Your task to perform on an android device: stop showing notifications on the lock screen Image 0: 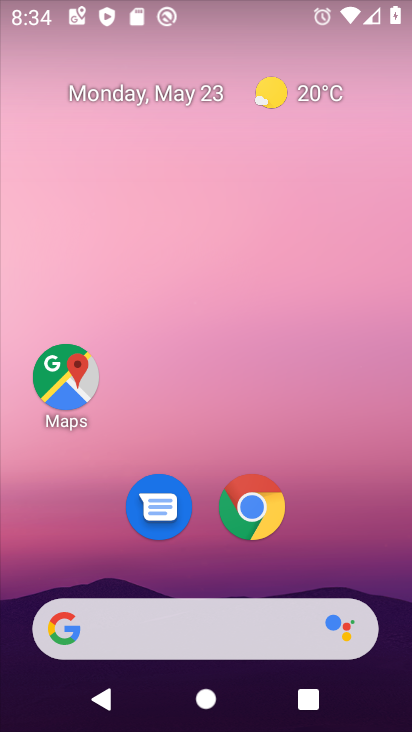
Step 0: drag from (383, 595) to (367, 12)
Your task to perform on an android device: stop showing notifications on the lock screen Image 1: 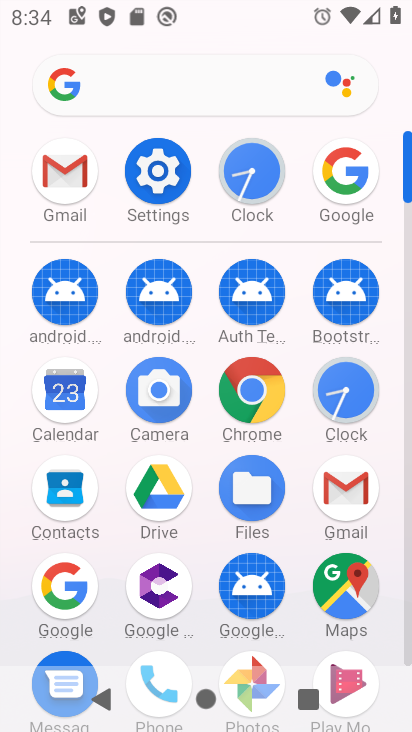
Step 1: click (167, 178)
Your task to perform on an android device: stop showing notifications on the lock screen Image 2: 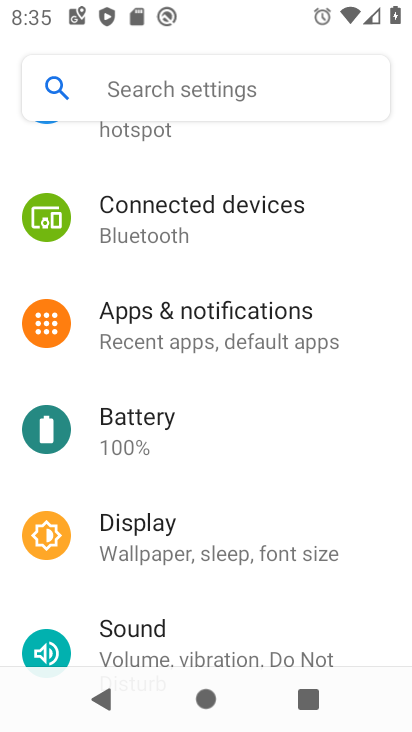
Step 2: click (162, 333)
Your task to perform on an android device: stop showing notifications on the lock screen Image 3: 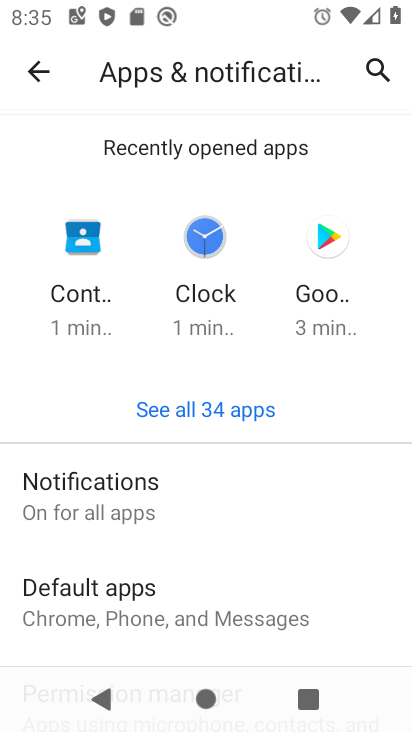
Step 3: click (100, 513)
Your task to perform on an android device: stop showing notifications on the lock screen Image 4: 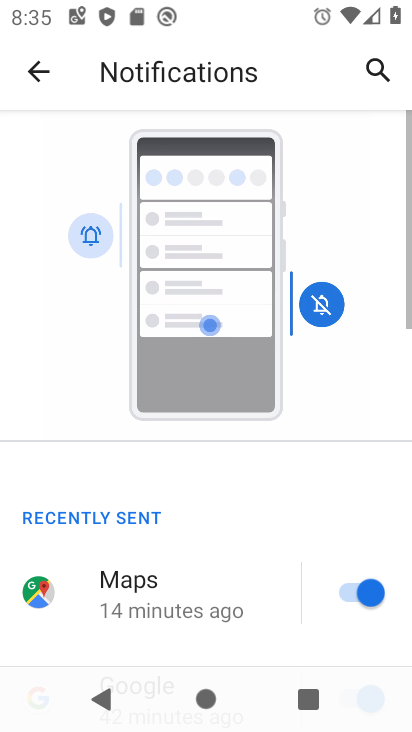
Step 4: drag from (172, 601) to (170, 61)
Your task to perform on an android device: stop showing notifications on the lock screen Image 5: 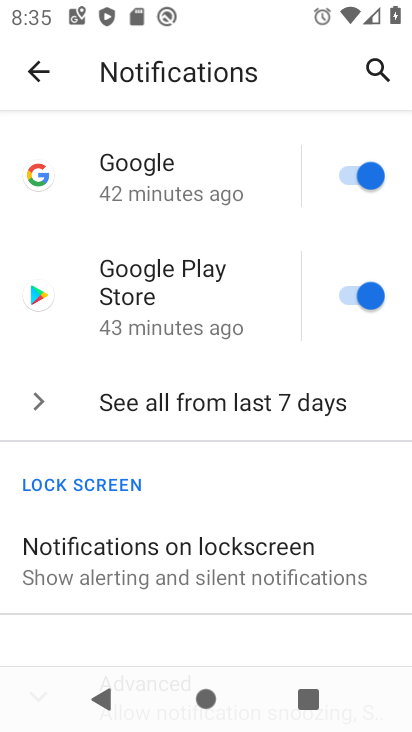
Step 5: click (114, 542)
Your task to perform on an android device: stop showing notifications on the lock screen Image 6: 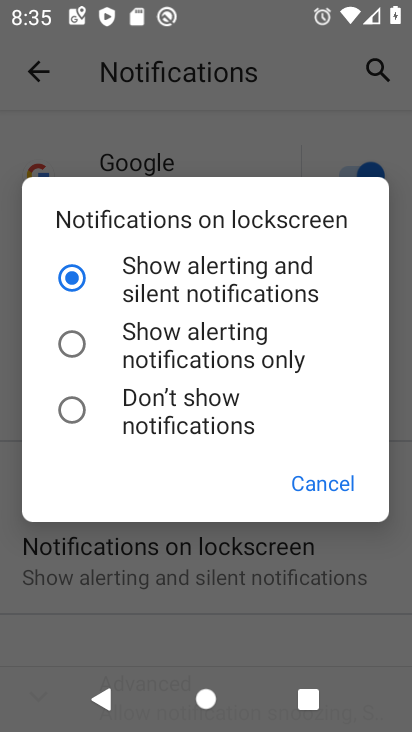
Step 6: click (58, 405)
Your task to perform on an android device: stop showing notifications on the lock screen Image 7: 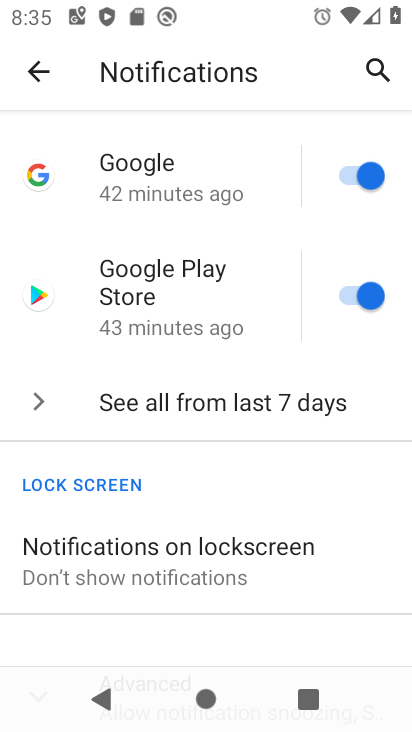
Step 7: task complete